Your task to perform on an android device: Open Youtube and go to the subscriptions tab Image 0: 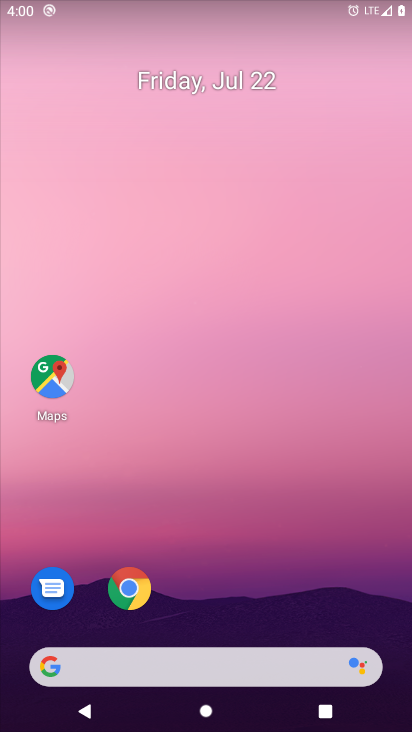
Step 0: drag from (243, 601) to (190, 132)
Your task to perform on an android device: Open Youtube and go to the subscriptions tab Image 1: 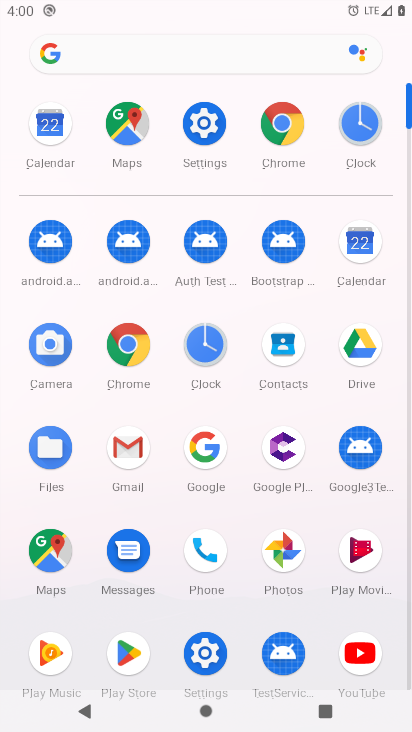
Step 1: click (379, 639)
Your task to perform on an android device: Open Youtube and go to the subscriptions tab Image 2: 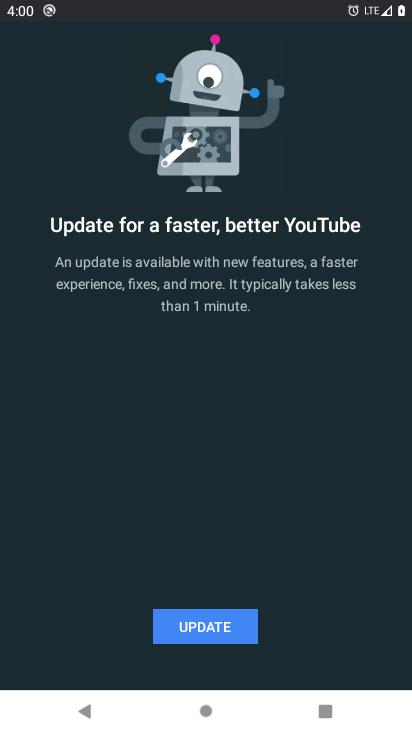
Step 2: click (178, 630)
Your task to perform on an android device: Open Youtube and go to the subscriptions tab Image 3: 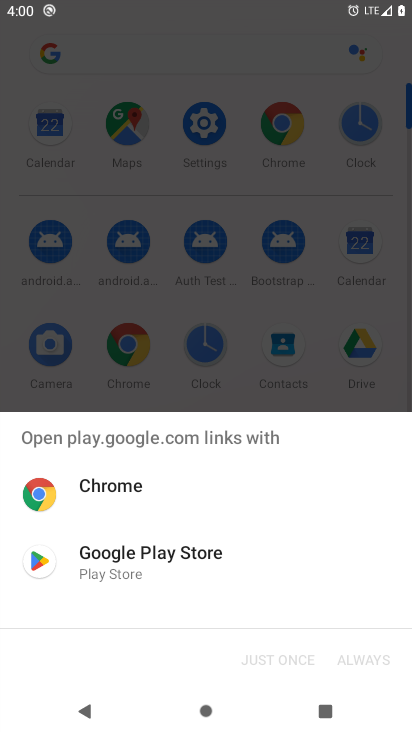
Step 3: click (180, 557)
Your task to perform on an android device: Open Youtube and go to the subscriptions tab Image 4: 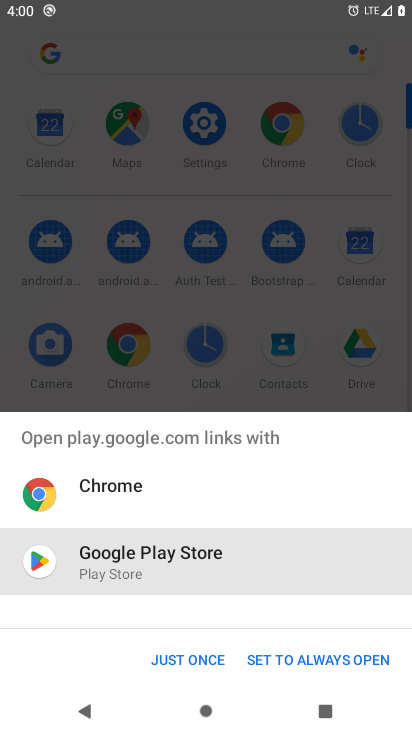
Step 4: click (200, 654)
Your task to perform on an android device: Open Youtube and go to the subscriptions tab Image 5: 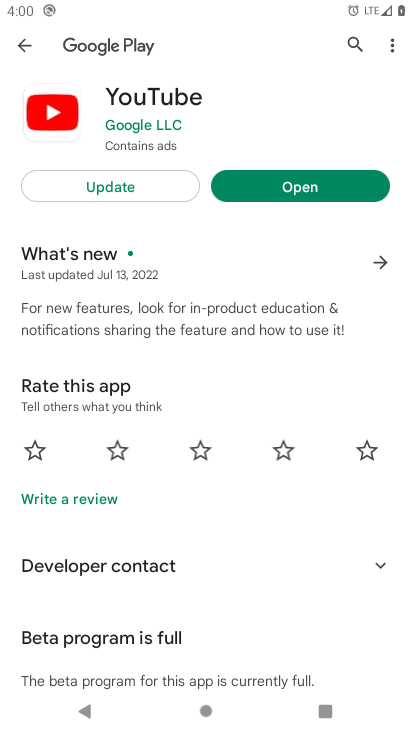
Step 5: click (113, 186)
Your task to perform on an android device: Open Youtube and go to the subscriptions tab Image 6: 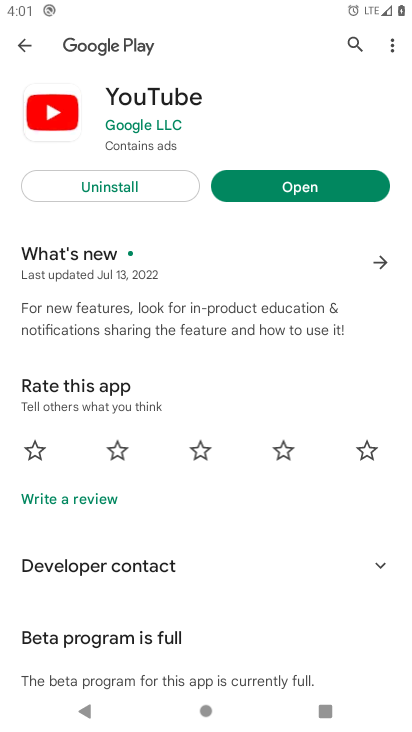
Step 6: click (353, 183)
Your task to perform on an android device: Open Youtube and go to the subscriptions tab Image 7: 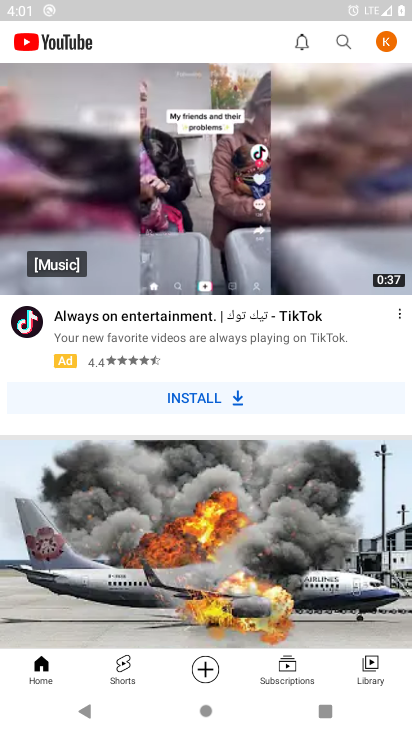
Step 7: click (289, 668)
Your task to perform on an android device: Open Youtube and go to the subscriptions tab Image 8: 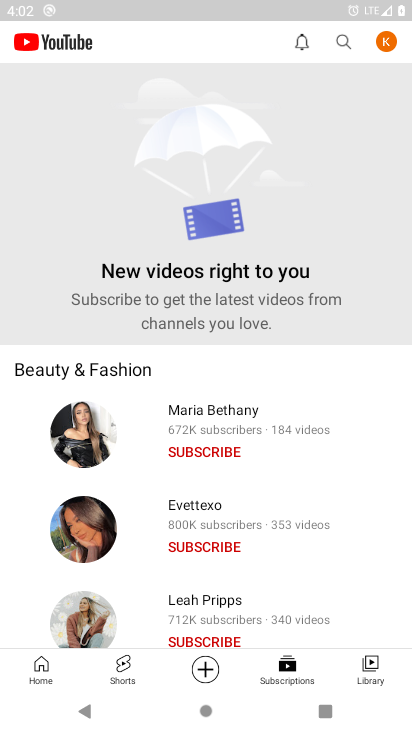
Step 8: task complete